Your task to perform on an android device: turn off smart reply in the gmail app Image 0: 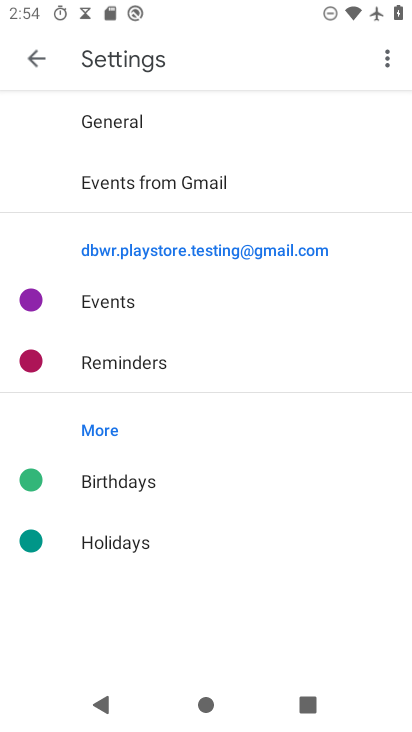
Step 0: press home button
Your task to perform on an android device: turn off smart reply in the gmail app Image 1: 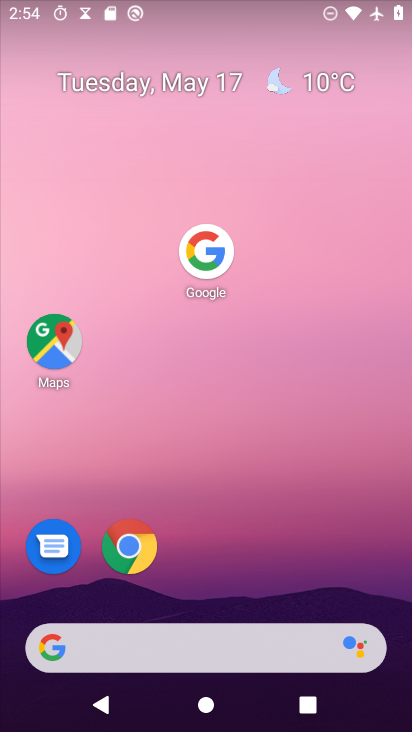
Step 1: drag from (197, 647) to (320, 42)
Your task to perform on an android device: turn off smart reply in the gmail app Image 2: 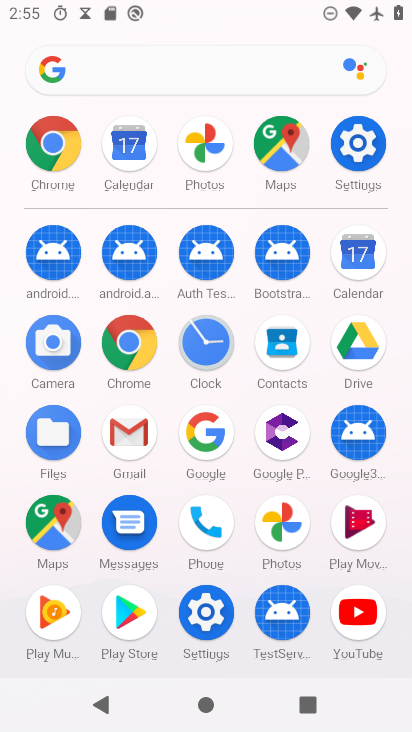
Step 2: click (134, 435)
Your task to perform on an android device: turn off smart reply in the gmail app Image 3: 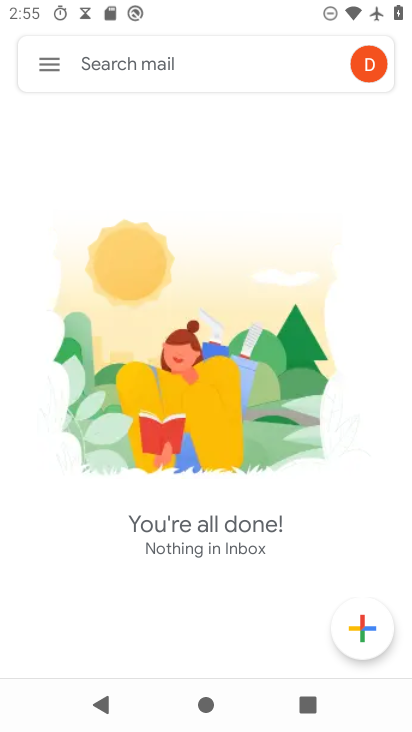
Step 3: click (49, 66)
Your task to perform on an android device: turn off smart reply in the gmail app Image 4: 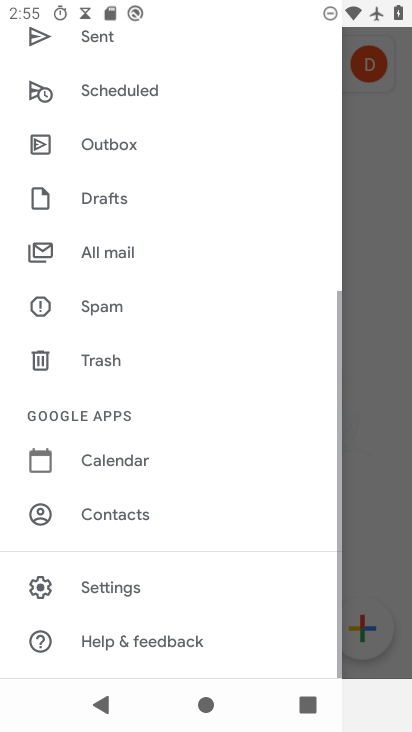
Step 4: click (170, 594)
Your task to perform on an android device: turn off smart reply in the gmail app Image 5: 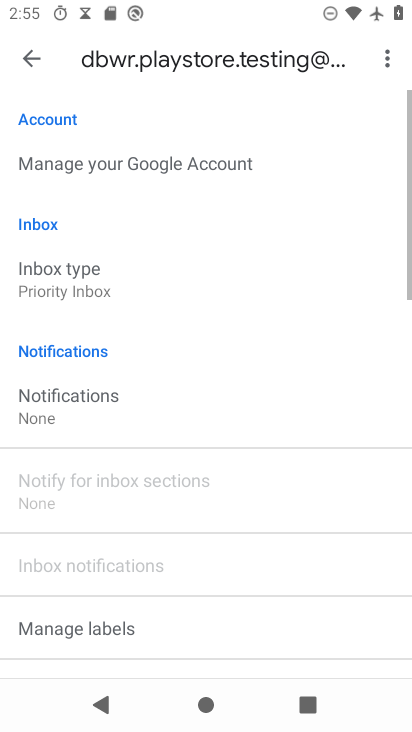
Step 5: drag from (211, 590) to (318, 62)
Your task to perform on an android device: turn off smart reply in the gmail app Image 6: 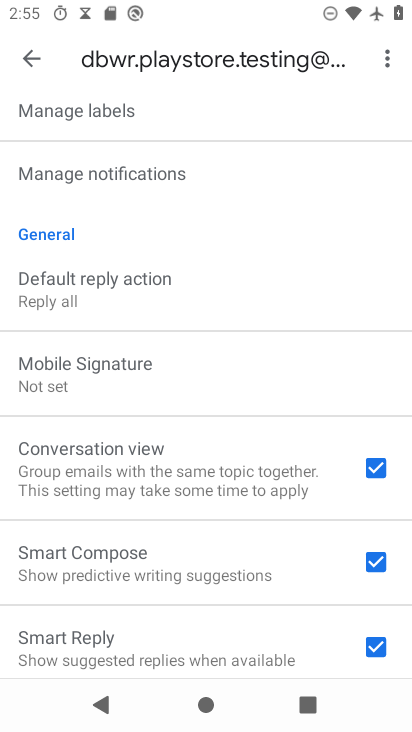
Step 6: drag from (205, 549) to (271, 352)
Your task to perform on an android device: turn off smart reply in the gmail app Image 7: 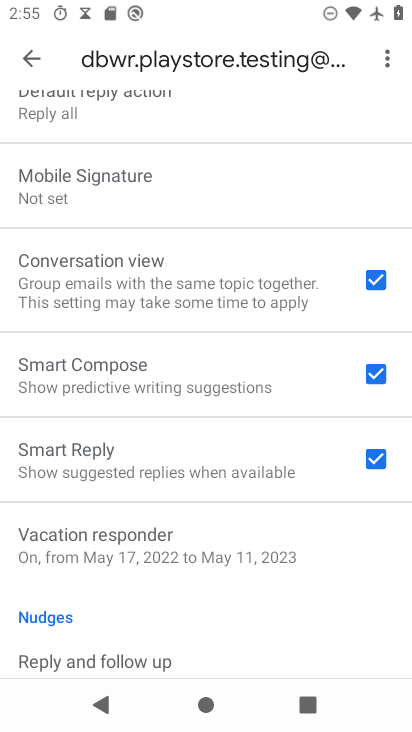
Step 7: click (379, 463)
Your task to perform on an android device: turn off smart reply in the gmail app Image 8: 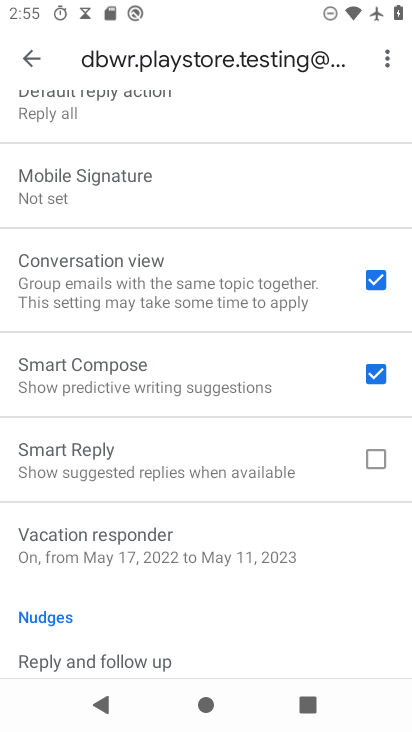
Step 8: task complete